Your task to perform on an android device: Open privacy settings Image 0: 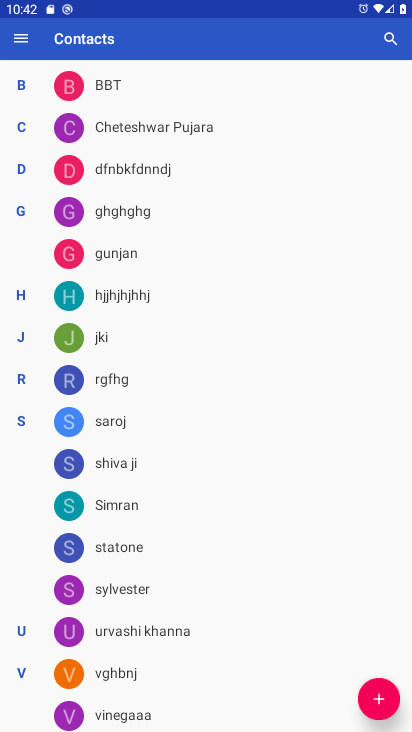
Step 0: press home button
Your task to perform on an android device: Open privacy settings Image 1: 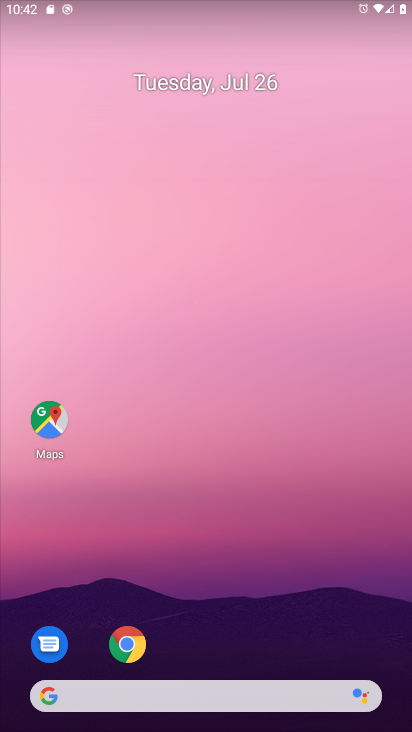
Step 1: drag from (188, 662) to (215, 27)
Your task to perform on an android device: Open privacy settings Image 2: 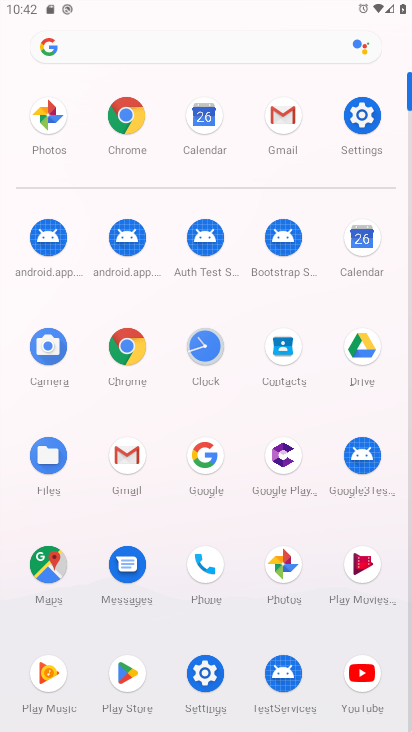
Step 2: click (199, 677)
Your task to perform on an android device: Open privacy settings Image 3: 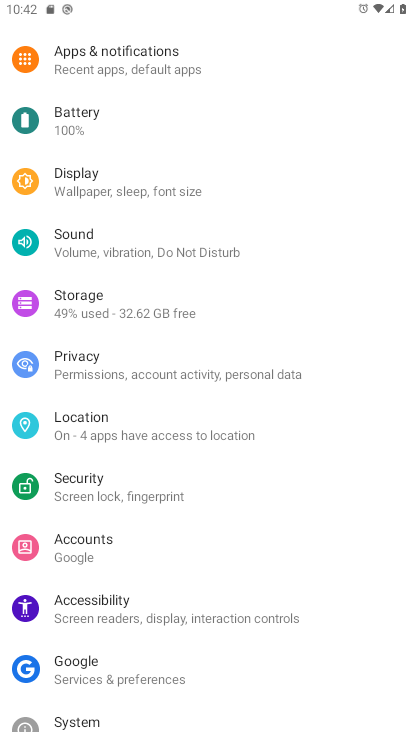
Step 3: click (150, 376)
Your task to perform on an android device: Open privacy settings Image 4: 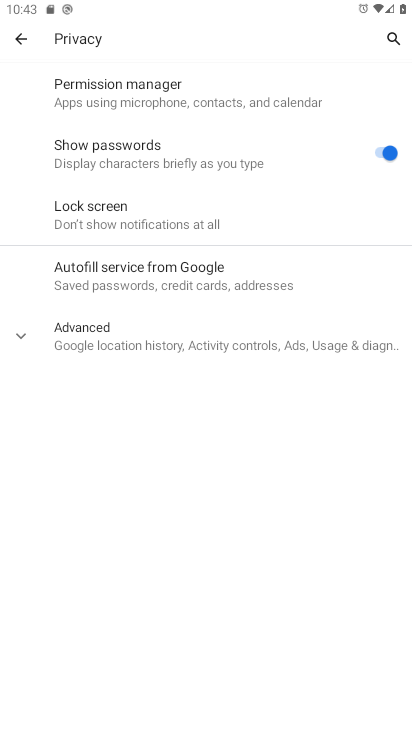
Step 4: task complete